Your task to perform on an android device: change your default location settings in chrome Image 0: 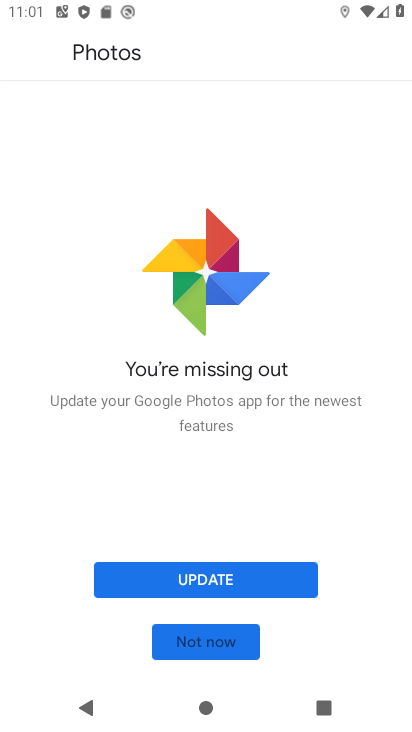
Step 0: press home button
Your task to perform on an android device: change your default location settings in chrome Image 1: 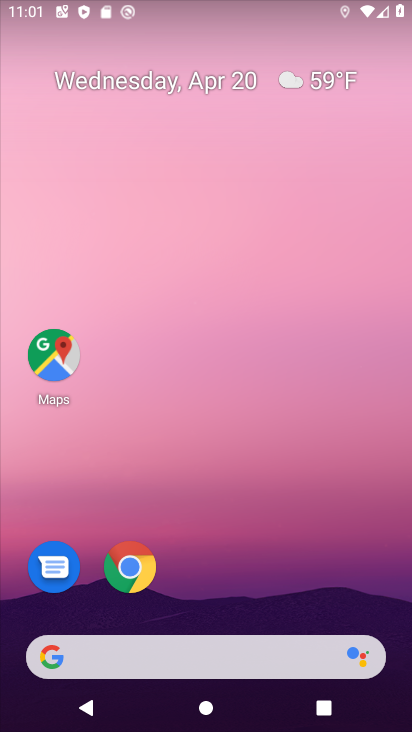
Step 1: click (119, 565)
Your task to perform on an android device: change your default location settings in chrome Image 2: 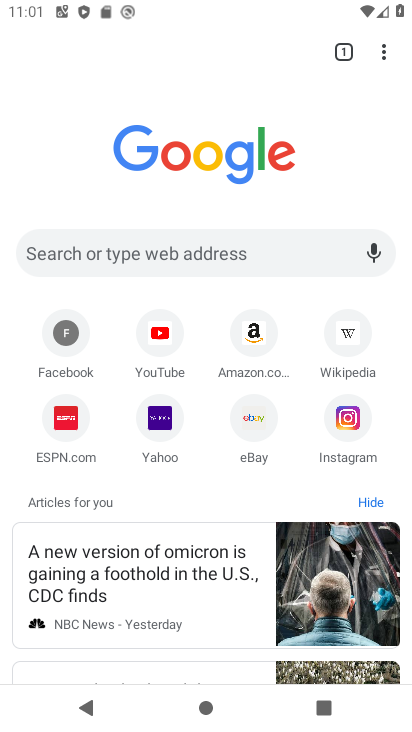
Step 2: click (382, 53)
Your task to perform on an android device: change your default location settings in chrome Image 3: 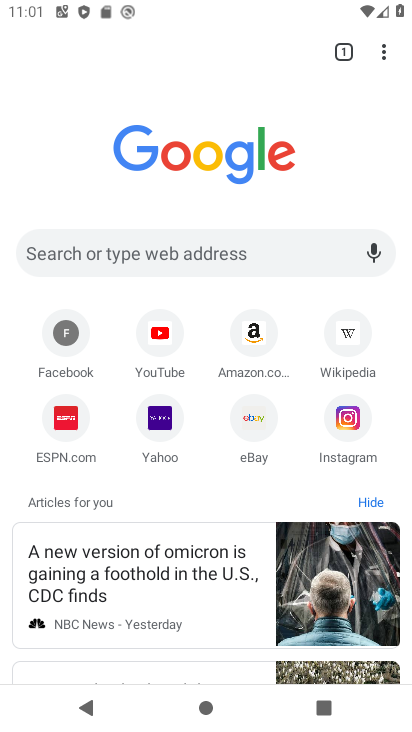
Step 3: click (382, 53)
Your task to perform on an android device: change your default location settings in chrome Image 4: 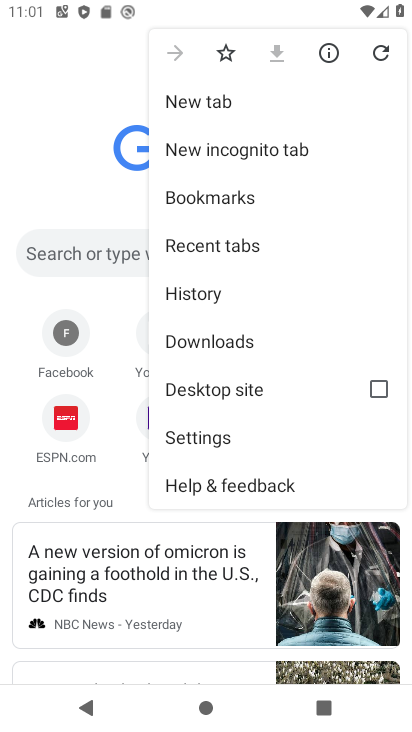
Step 4: click (270, 432)
Your task to perform on an android device: change your default location settings in chrome Image 5: 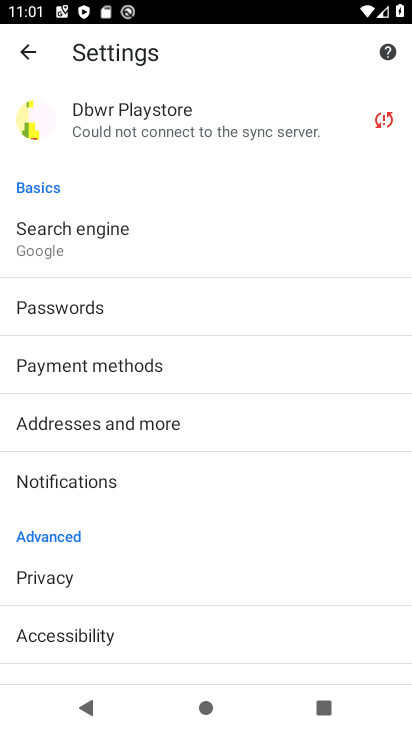
Step 5: drag from (239, 616) to (208, 517)
Your task to perform on an android device: change your default location settings in chrome Image 6: 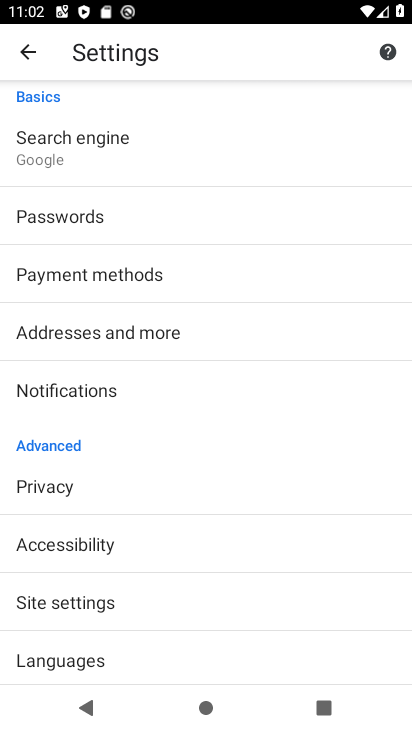
Step 6: click (191, 604)
Your task to perform on an android device: change your default location settings in chrome Image 7: 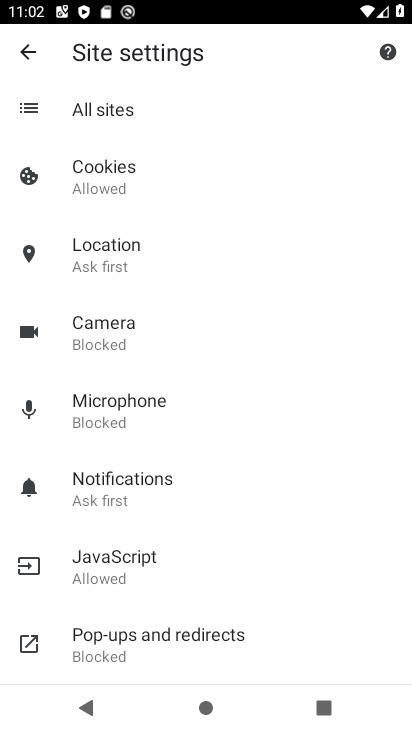
Step 7: click (101, 261)
Your task to perform on an android device: change your default location settings in chrome Image 8: 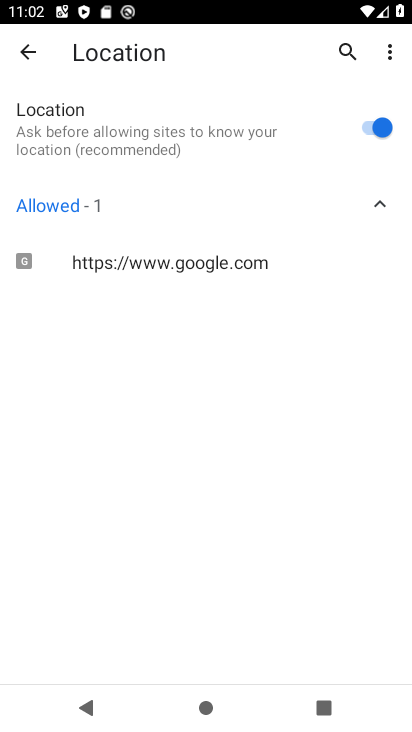
Step 8: click (383, 113)
Your task to perform on an android device: change your default location settings in chrome Image 9: 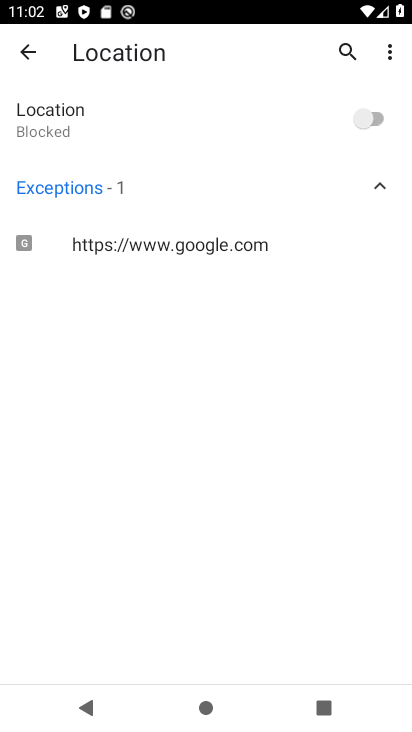
Step 9: task complete